Your task to perform on an android device: Go to settings Image 0: 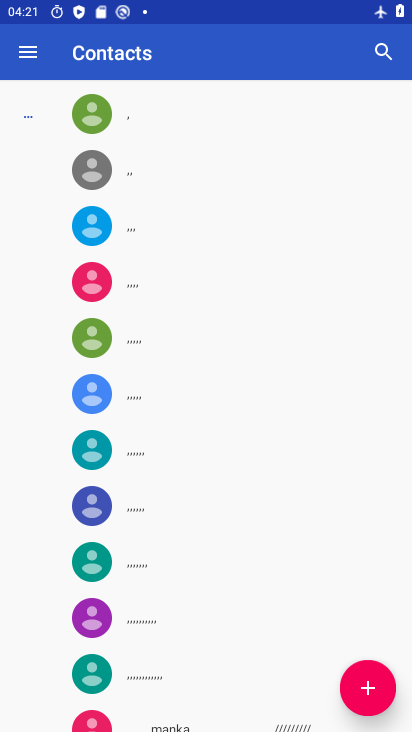
Step 0: press home button
Your task to perform on an android device: Go to settings Image 1: 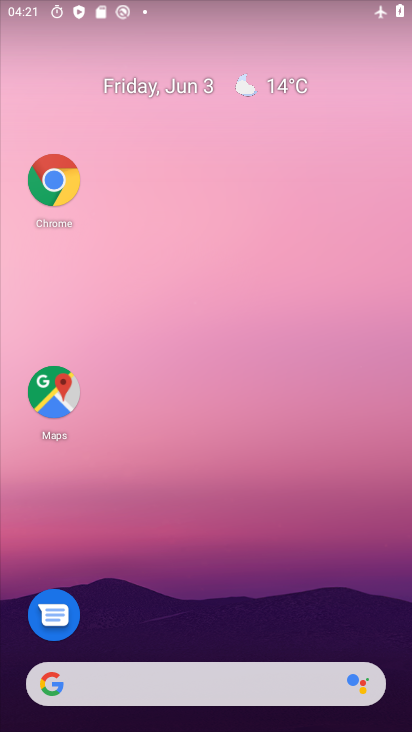
Step 1: drag from (132, 728) to (120, 126)
Your task to perform on an android device: Go to settings Image 2: 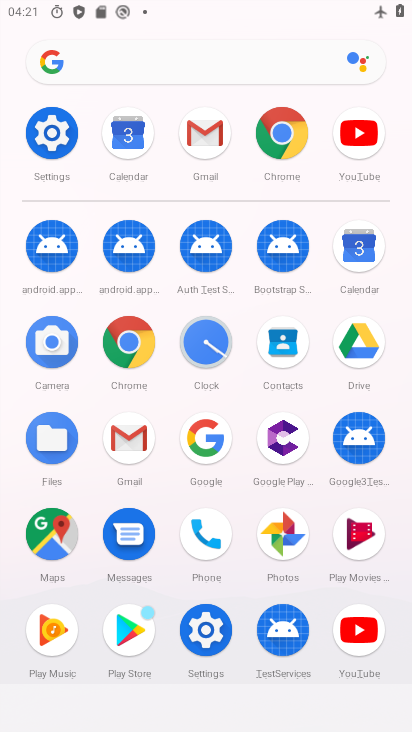
Step 2: click (204, 633)
Your task to perform on an android device: Go to settings Image 3: 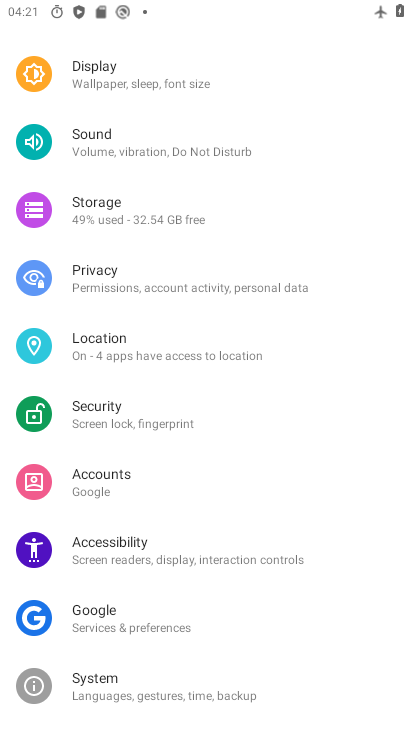
Step 3: task complete